Your task to perform on an android device: Turn on the flashlight Image 0: 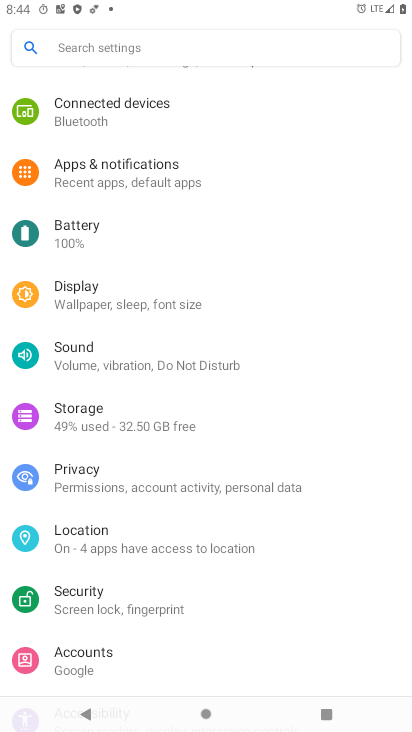
Step 0: press home button
Your task to perform on an android device: Turn on the flashlight Image 1: 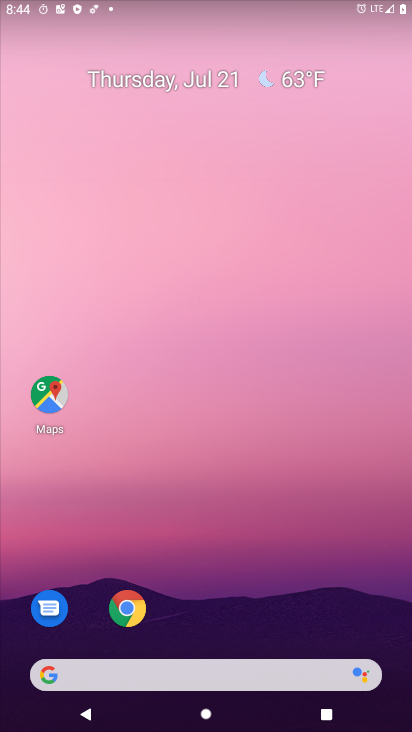
Step 1: task complete